Your task to perform on an android device: delete browsing data in the chrome app Image 0: 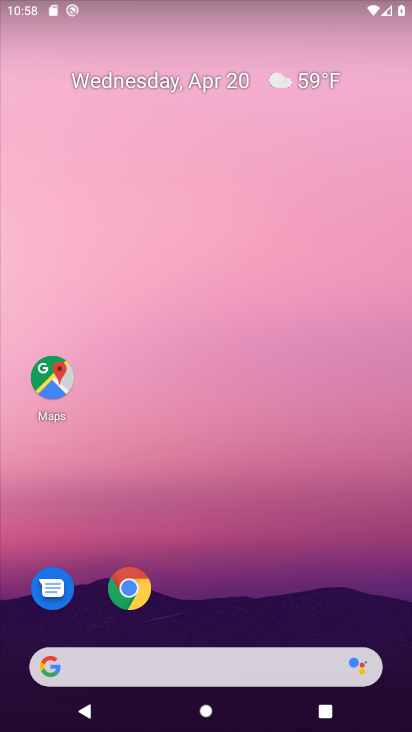
Step 0: click (131, 593)
Your task to perform on an android device: delete browsing data in the chrome app Image 1: 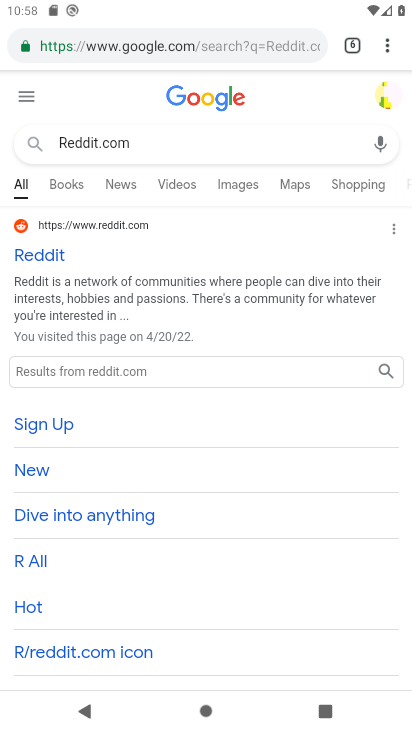
Step 1: click (388, 45)
Your task to perform on an android device: delete browsing data in the chrome app Image 2: 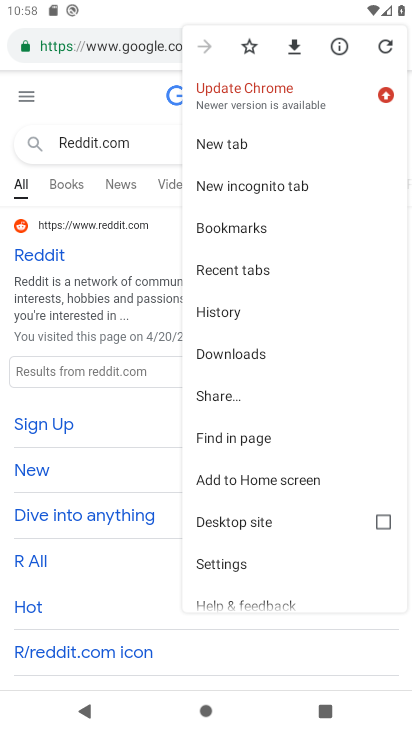
Step 2: click (239, 309)
Your task to perform on an android device: delete browsing data in the chrome app Image 3: 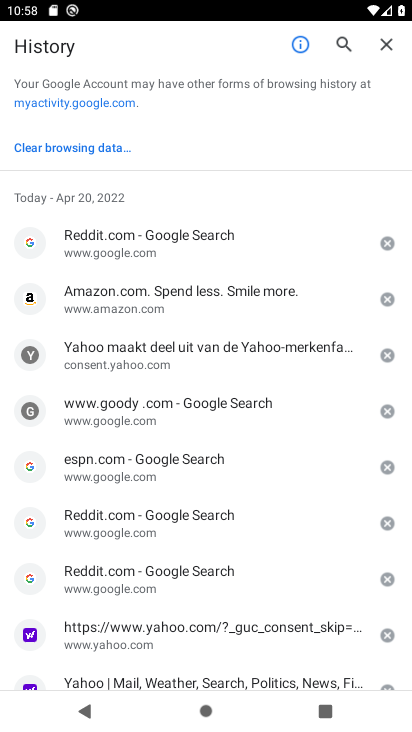
Step 3: click (61, 151)
Your task to perform on an android device: delete browsing data in the chrome app Image 4: 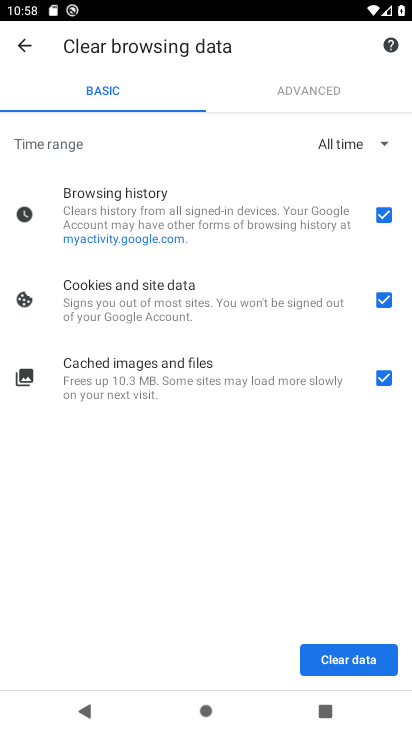
Step 4: click (384, 303)
Your task to perform on an android device: delete browsing data in the chrome app Image 5: 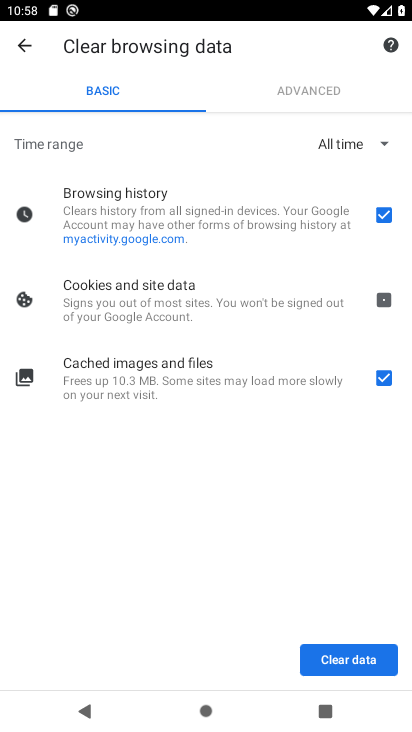
Step 5: click (387, 377)
Your task to perform on an android device: delete browsing data in the chrome app Image 6: 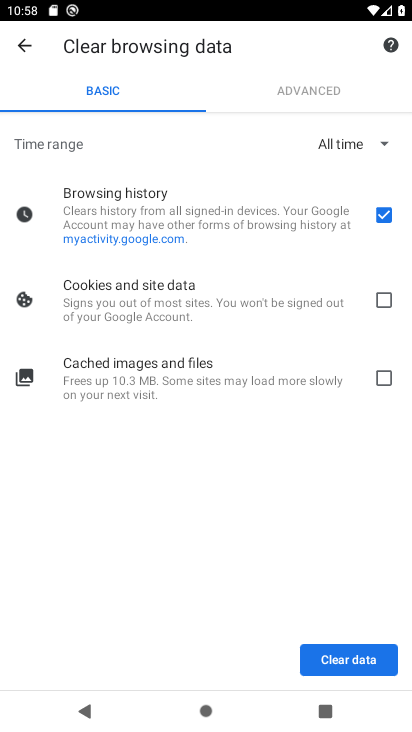
Step 6: click (348, 666)
Your task to perform on an android device: delete browsing data in the chrome app Image 7: 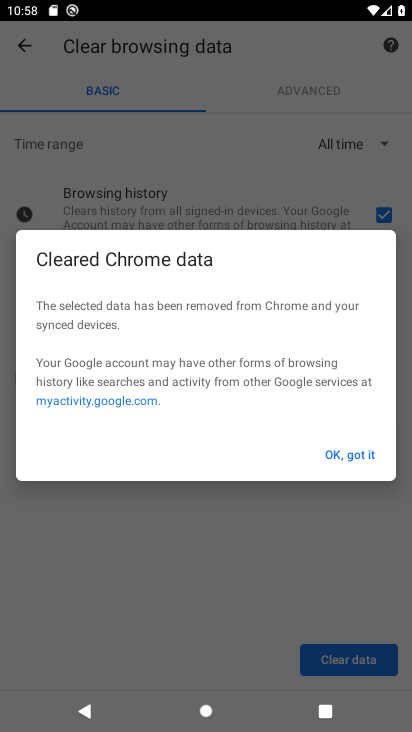
Step 7: click (349, 456)
Your task to perform on an android device: delete browsing data in the chrome app Image 8: 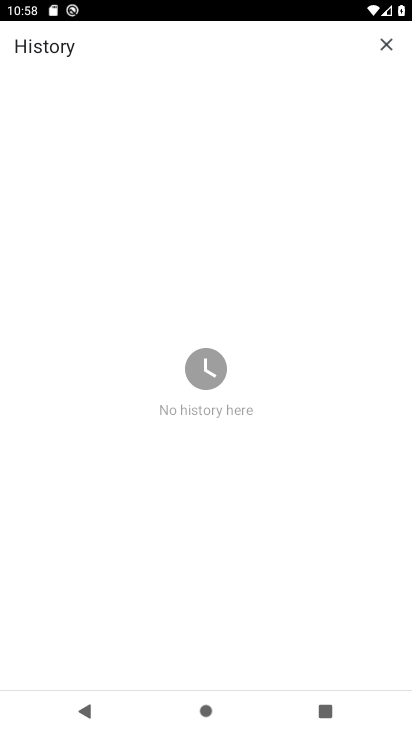
Step 8: task complete